Your task to perform on an android device: star an email in the gmail app Image 0: 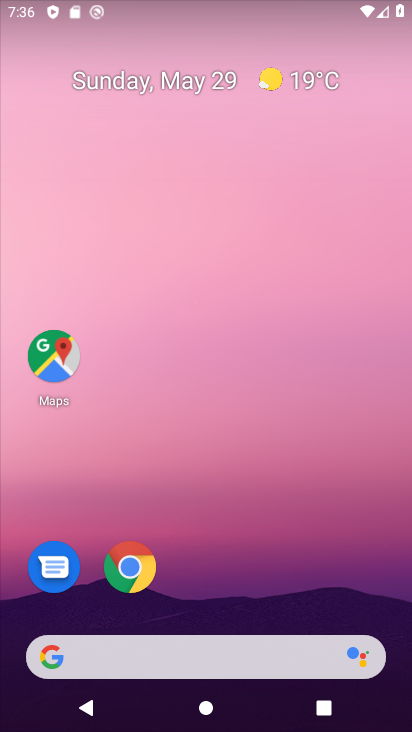
Step 0: drag from (406, 699) to (338, 131)
Your task to perform on an android device: star an email in the gmail app Image 1: 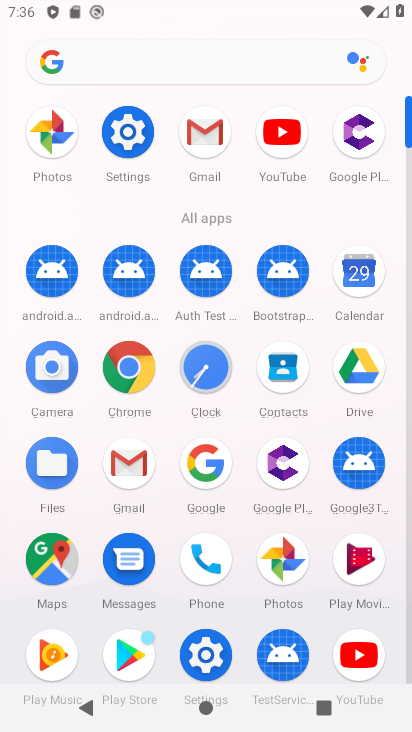
Step 1: click (193, 129)
Your task to perform on an android device: star an email in the gmail app Image 2: 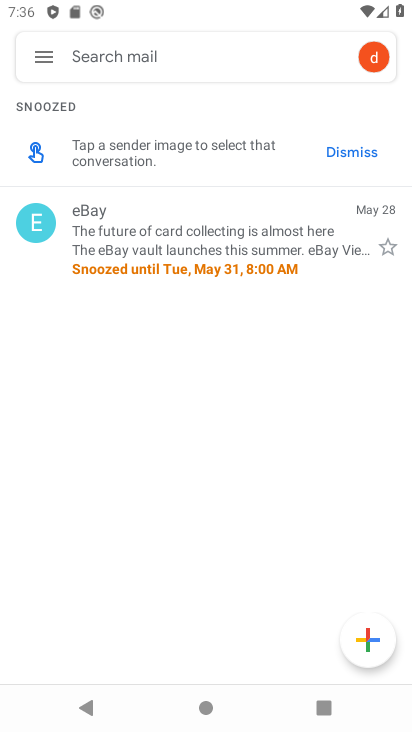
Step 2: click (35, 57)
Your task to perform on an android device: star an email in the gmail app Image 3: 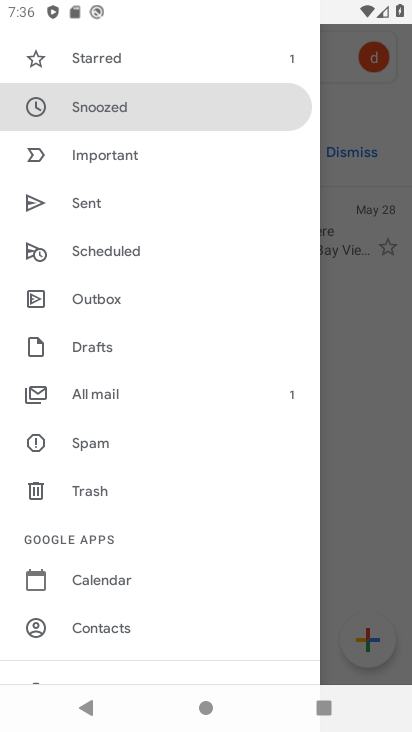
Step 3: drag from (220, 178) to (220, 622)
Your task to perform on an android device: star an email in the gmail app Image 4: 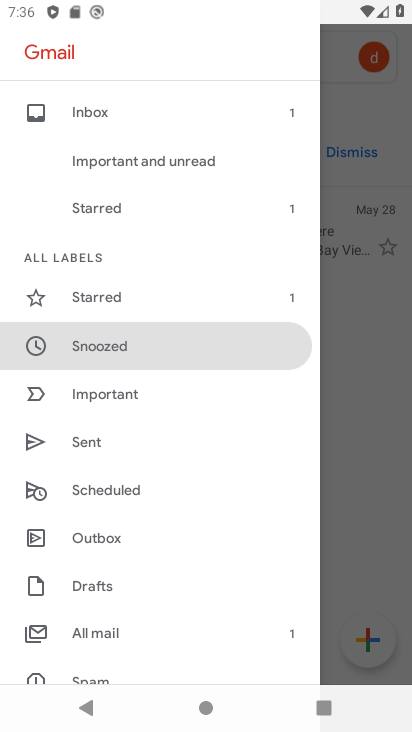
Step 4: click (90, 106)
Your task to perform on an android device: star an email in the gmail app Image 5: 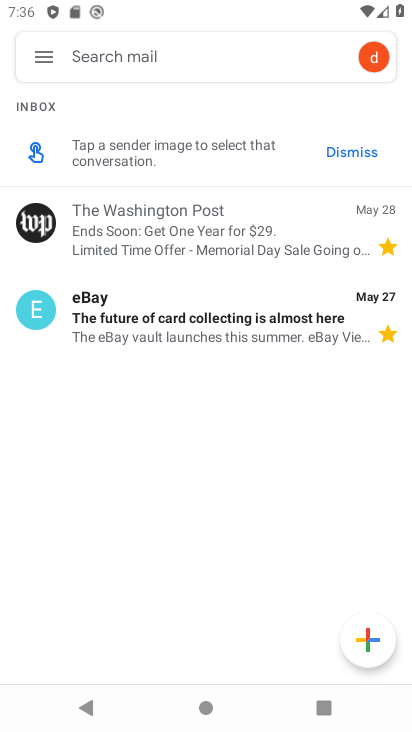
Step 5: task complete